Your task to perform on an android device: Find coffee shops on Maps Image 0: 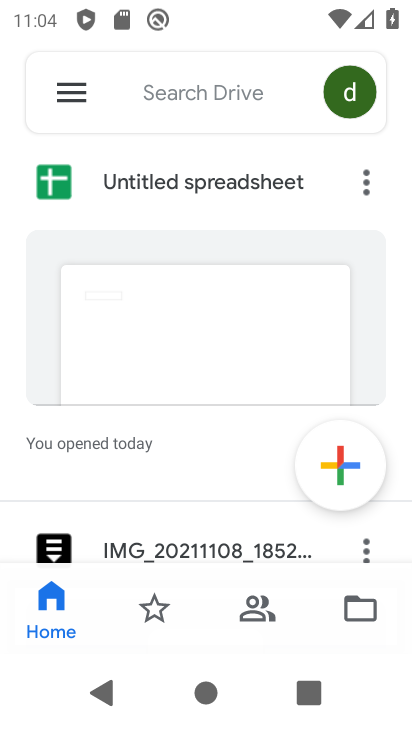
Step 0: press home button
Your task to perform on an android device: Find coffee shops on Maps Image 1: 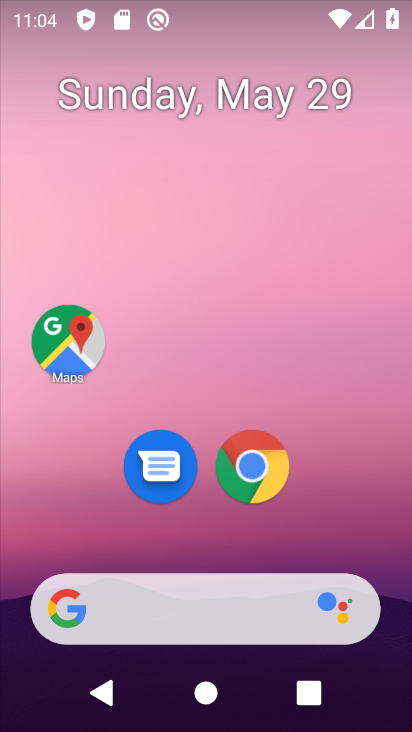
Step 1: click (85, 330)
Your task to perform on an android device: Find coffee shops on Maps Image 2: 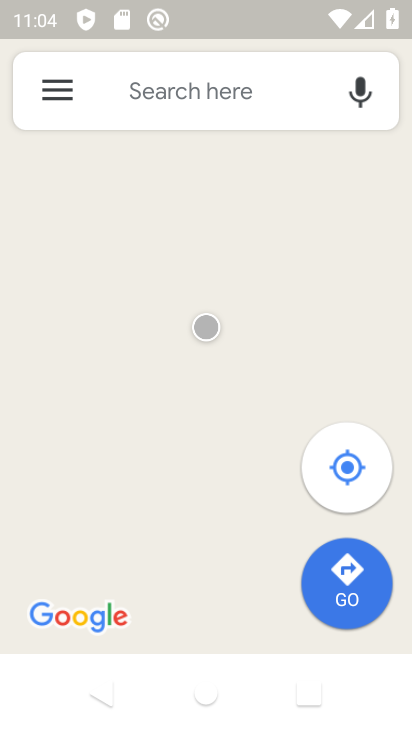
Step 2: click (233, 93)
Your task to perform on an android device: Find coffee shops on Maps Image 3: 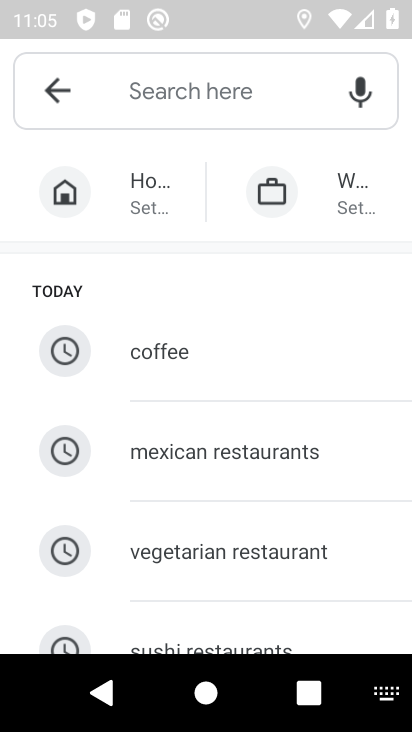
Step 3: drag from (254, 506) to (258, 167)
Your task to perform on an android device: Find coffee shops on Maps Image 4: 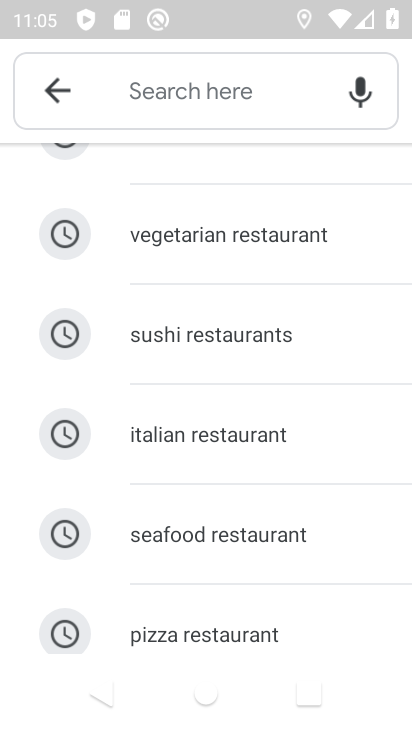
Step 4: drag from (251, 606) to (265, 191)
Your task to perform on an android device: Find coffee shops on Maps Image 5: 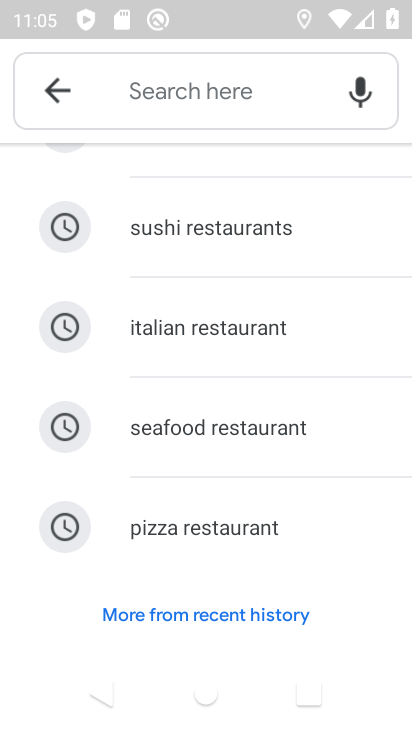
Step 5: click (172, 84)
Your task to perform on an android device: Find coffee shops on Maps Image 6: 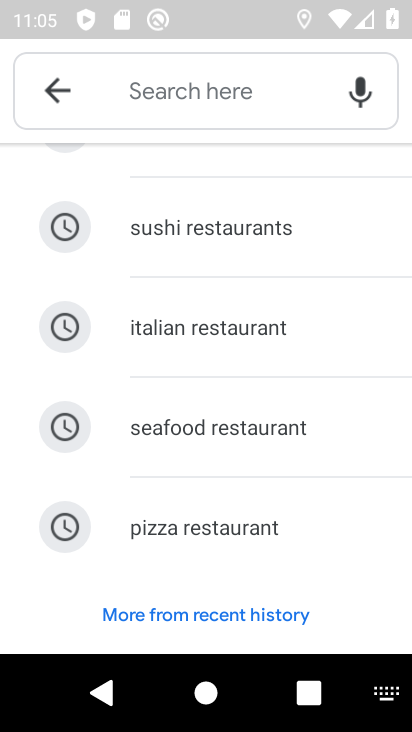
Step 6: type "coffee shops"
Your task to perform on an android device: Find coffee shops on Maps Image 7: 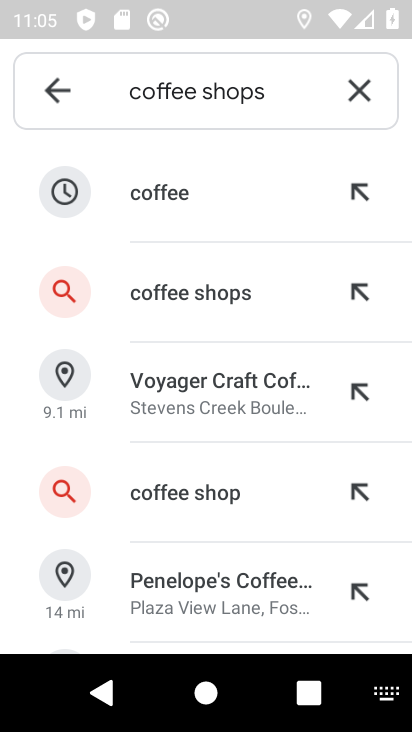
Step 7: task complete